Your task to perform on an android device: Open Google Maps Image 0: 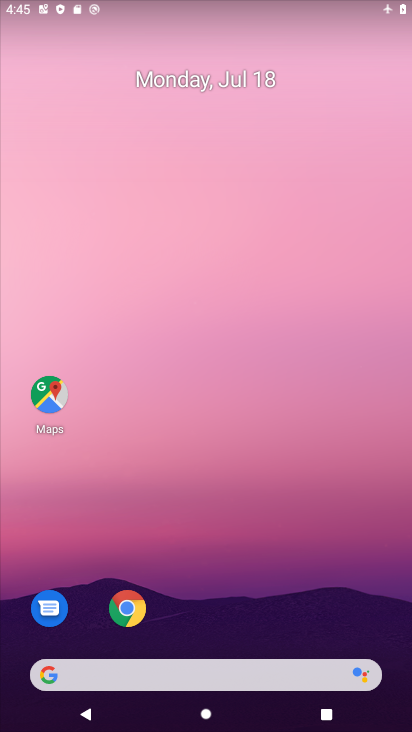
Step 0: drag from (161, 55) to (164, 20)
Your task to perform on an android device: Open Google Maps Image 1: 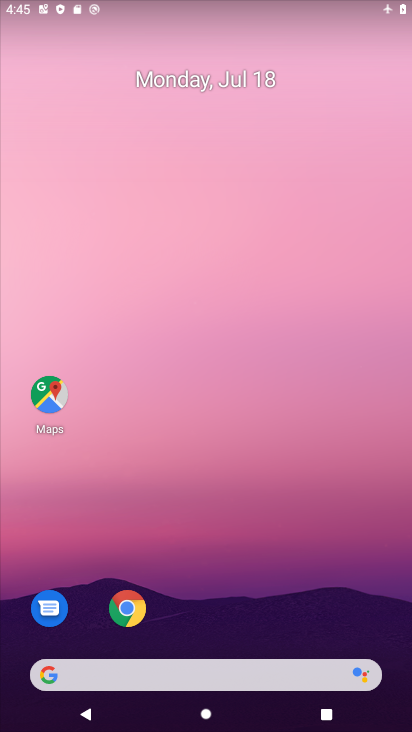
Step 1: drag from (350, 618) to (236, 32)
Your task to perform on an android device: Open Google Maps Image 2: 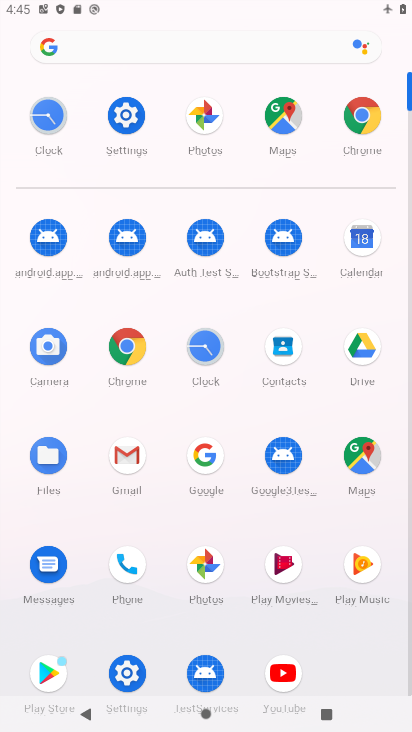
Step 2: click (281, 116)
Your task to perform on an android device: Open Google Maps Image 3: 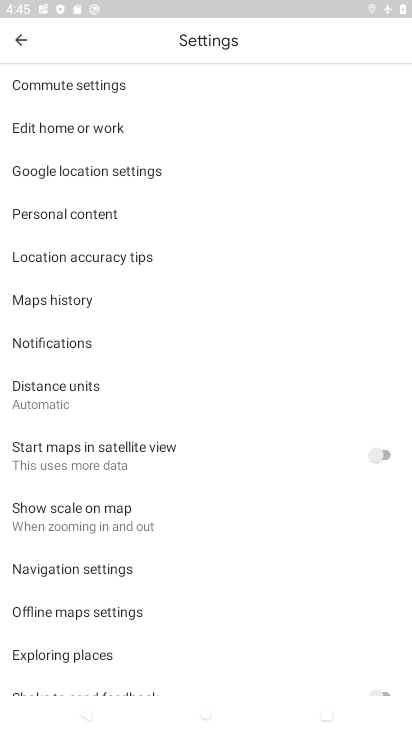
Step 3: task complete